Your task to perform on an android device: Is it going to rain today? Image 0: 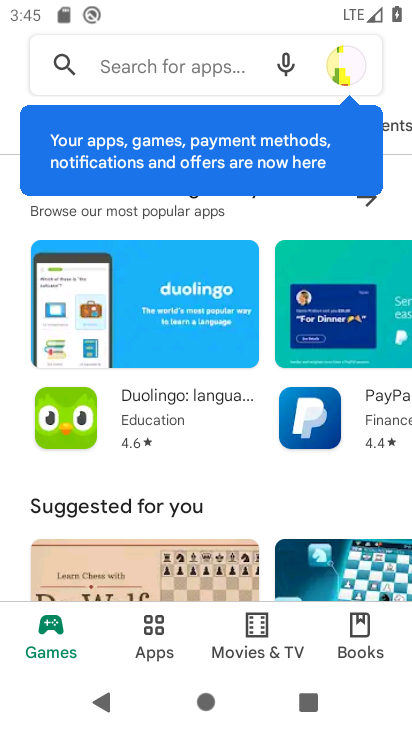
Step 0: press home button
Your task to perform on an android device: Is it going to rain today? Image 1: 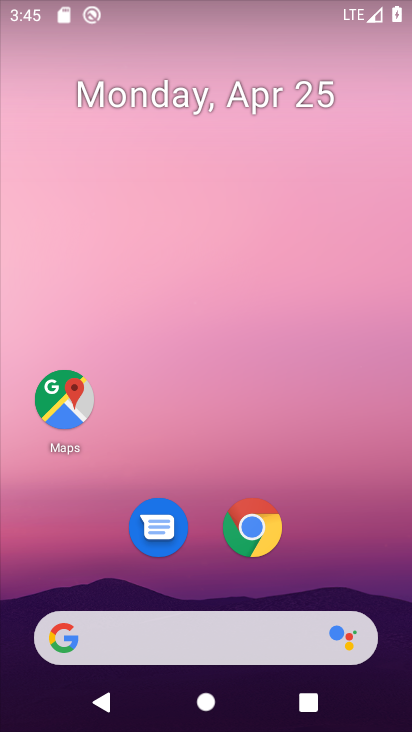
Step 1: drag from (9, 130) to (408, 294)
Your task to perform on an android device: Is it going to rain today? Image 2: 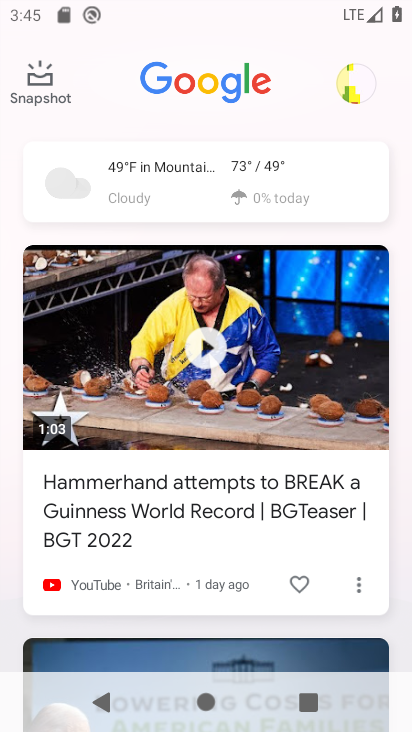
Step 2: click (248, 170)
Your task to perform on an android device: Is it going to rain today? Image 3: 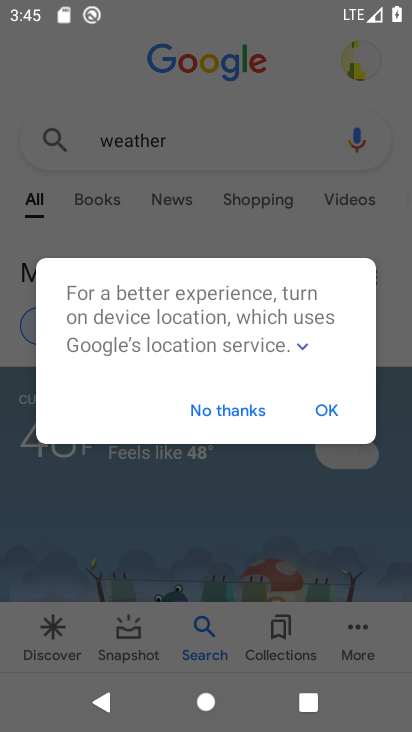
Step 3: click (321, 408)
Your task to perform on an android device: Is it going to rain today? Image 4: 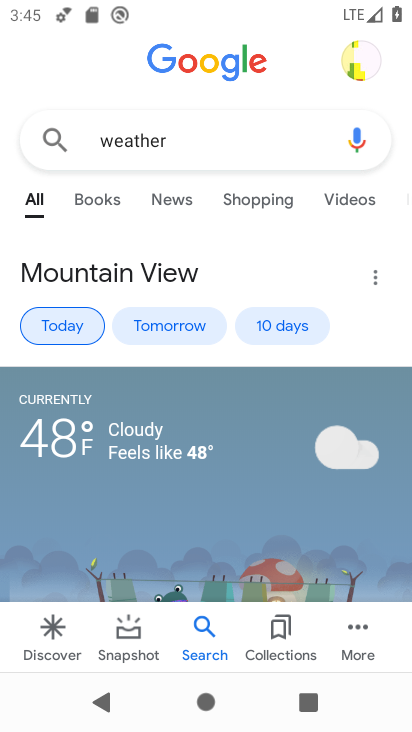
Step 4: task complete